Your task to perform on an android device: toggle wifi Image 0: 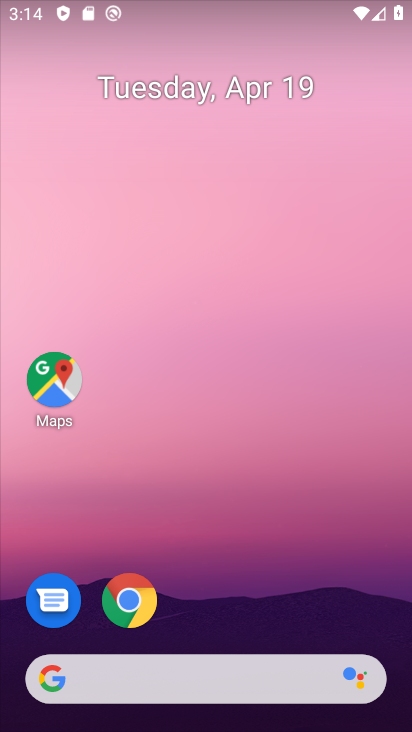
Step 0: drag from (179, 14) to (181, 423)
Your task to perform on an android device: toggle wifi Image 1: 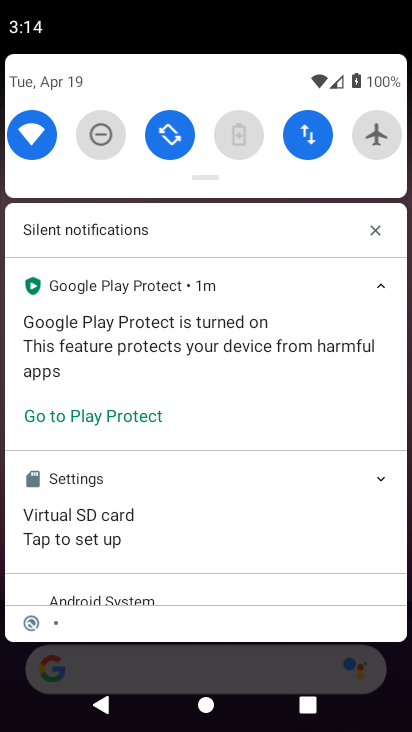
Step 1: click (50, 137)
Your task to perform on an android device: toggle wifi Image 2: 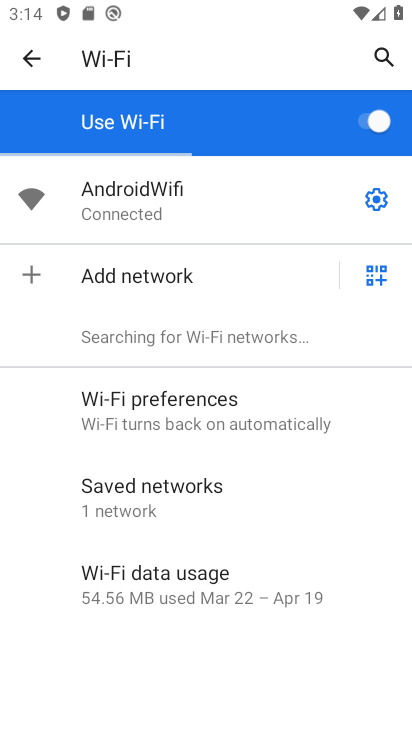
Step 2: click (375, 119)
Your task to perform on an android device: toggle wifi Image 3: 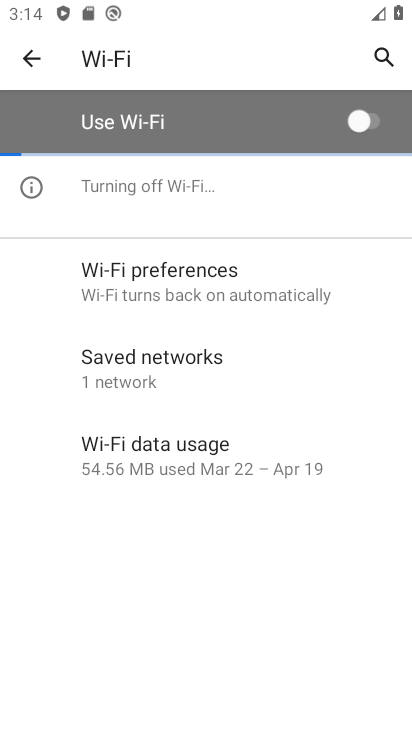
Step 3: click (375, 119)
Your task to perform on an android device: toggle wifi Image 4: 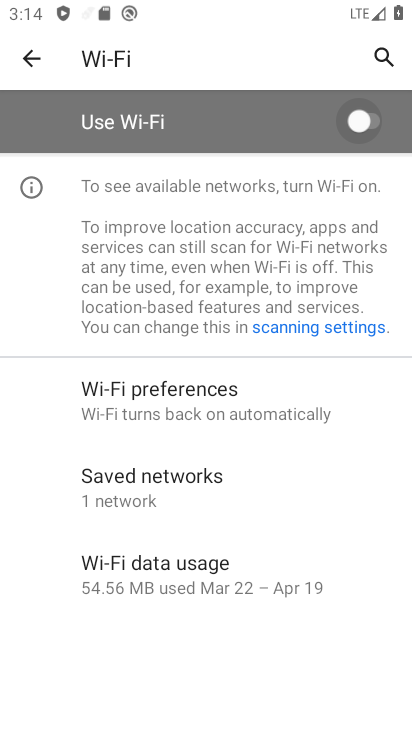
Step 4: click (375, 119)
Your task to perform on an android device: toggle wifi Image 5: 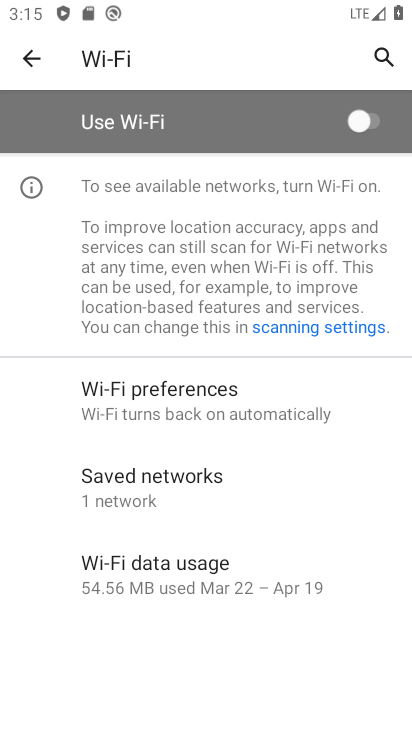
Step 5: click (369, 129)
Your task to perform on an android device: toggle wifi Image 6: 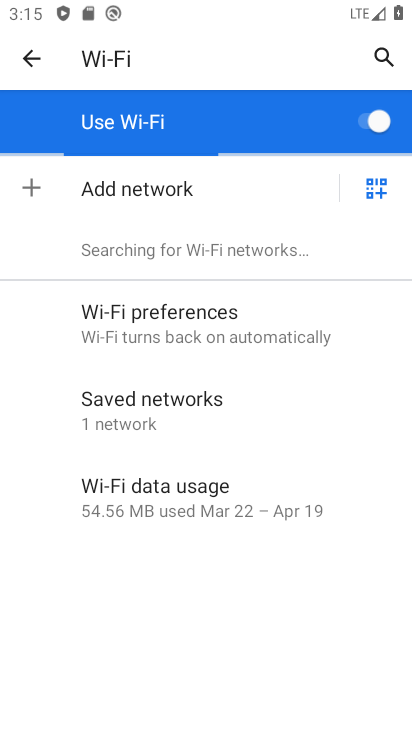
Step 6: task complete